Your task to perform on an android device: search for starred emails in the gmail app Image 0: 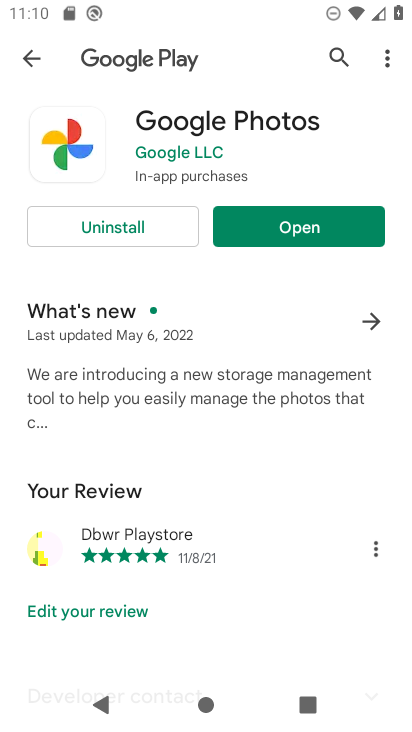
Step 0: press home button
Your task to perform on an android device: search for starred emails in the gmail app Image 1: 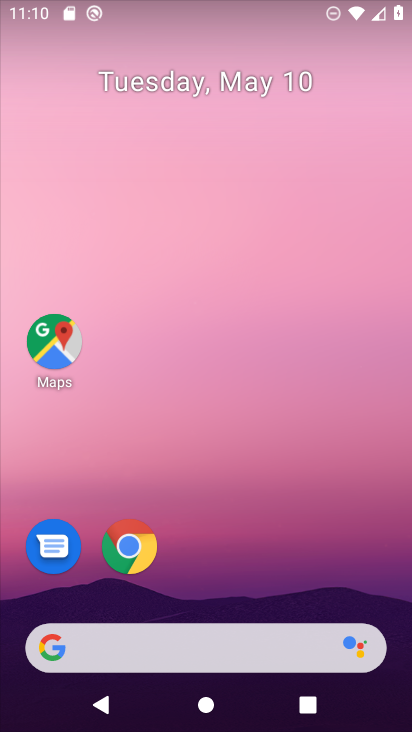
Step 1: drag from (267, 582) to (271, 90)
Your task to perform on an android device: search for starred emails in the gmail app Image 2: 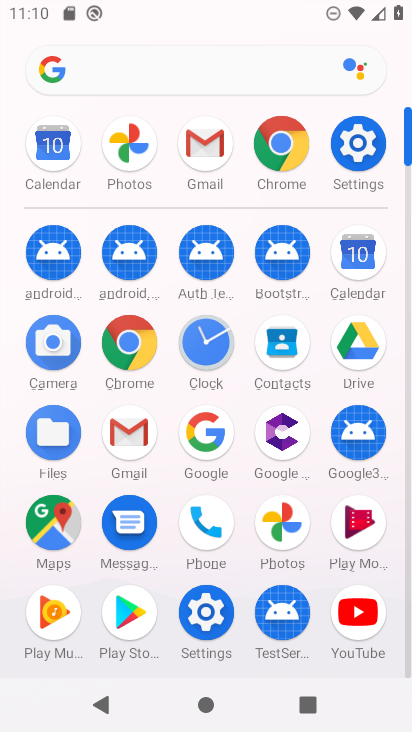
Step 2: click (214, 156)
Your task to perform on an android device: search for starred emails in the gmail app Image 3: 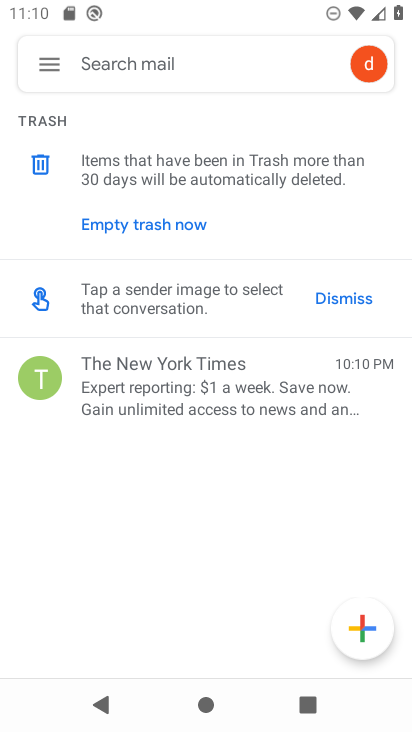
Step 3: click (51, 64)
Your task to perform on an android device: search for starred emails in the gmail app Image 4: 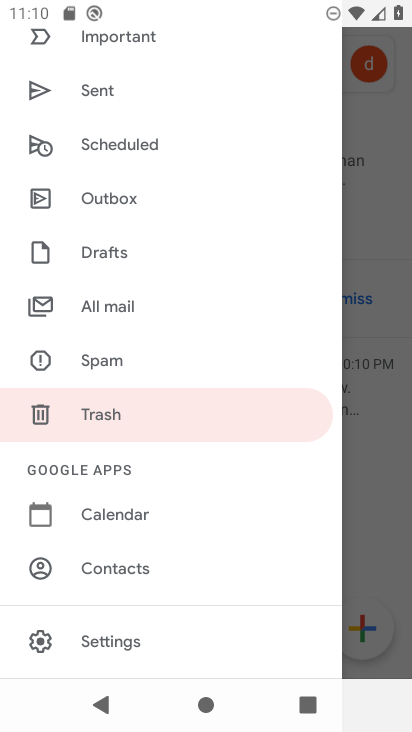
Step 4: drag from (166, 119) to (224, 514)
Your task to perform on an android device: search for starred emails in the gmail app Image 5: 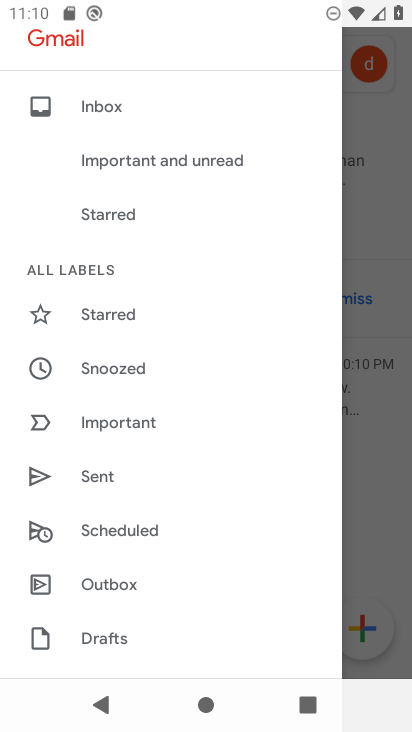
Step 5: click (139, 307)
Your task to perform on an android device: search for starred emails in the gmail app Image 6: 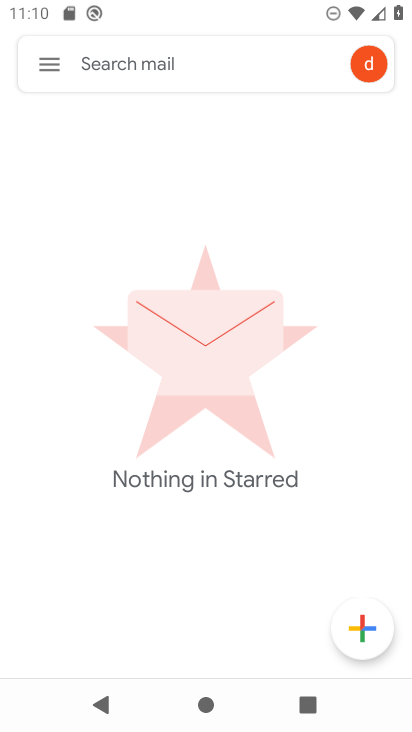
Step 6: task complete